Your task to perform on an android device: Open settings Image 0: 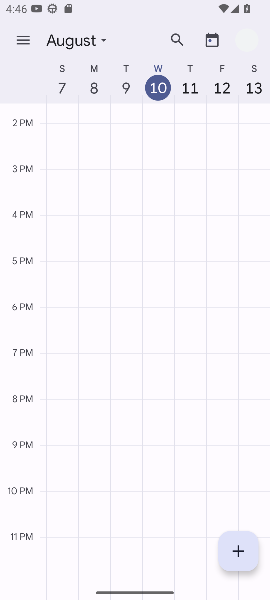
Step 0: press home button
Your task to perform on an android device: Open settings Image 1: 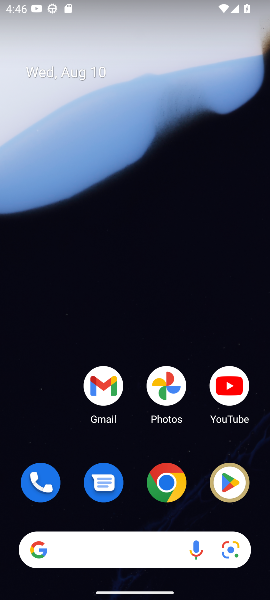
Step 1: drag from (66, 404) to (92, 22)
Your task to perform on an android device: Open settings Image 2: 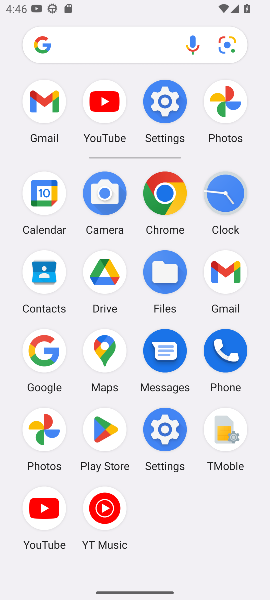
Step 2: click (164, 428)
Your task to perform on an android device: Open settings Image 3: 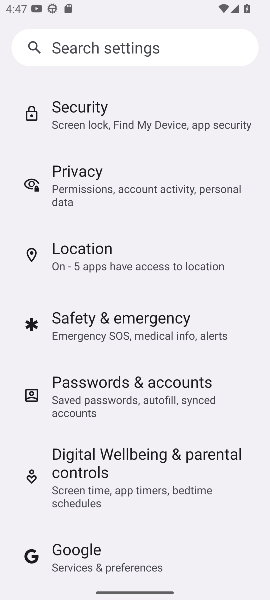
Step 3: task complete